Your task to perform on an android device: Search for the best pizza restaurants on Maps Image 0: 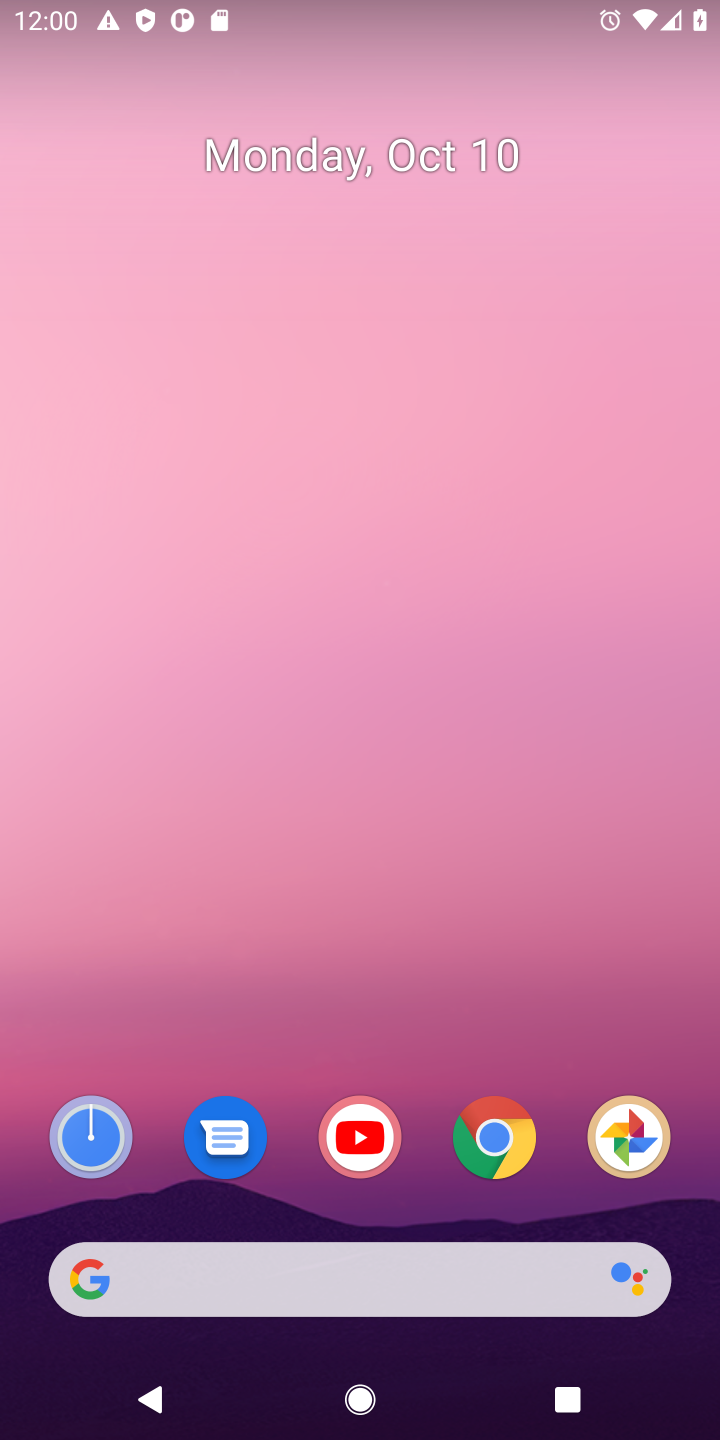
Step 0: drag from (562, 1081) to (614, 13)
Your task to perform on an android device: Search for the best pizza restaurants on Maps Image 1: 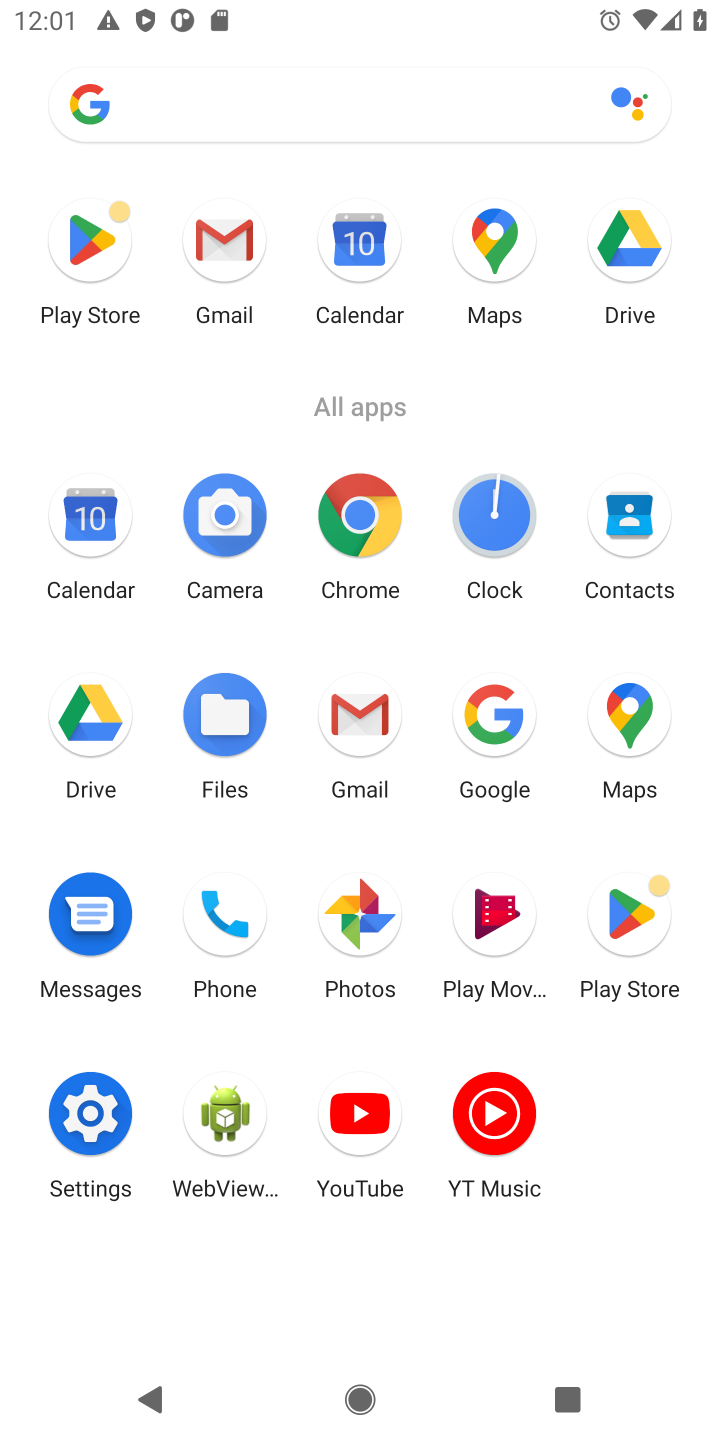
Step 1: click (377, 523)
Your task to perform on an android device: Search for the best pizza restaurants on Maps Image 2: 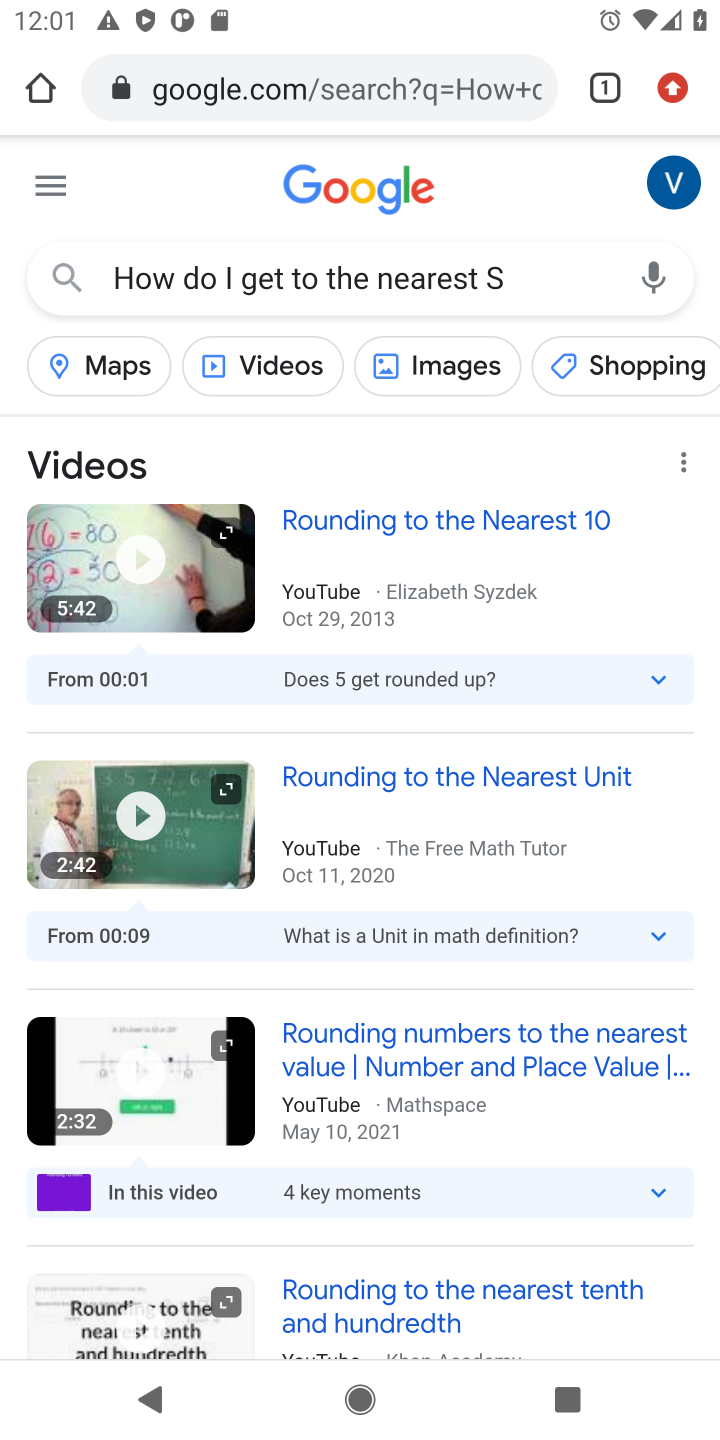
Step 2: click (311, 77)
Your task to perform on an android device: Search for the best pizza restaurants on Maps Image 3: 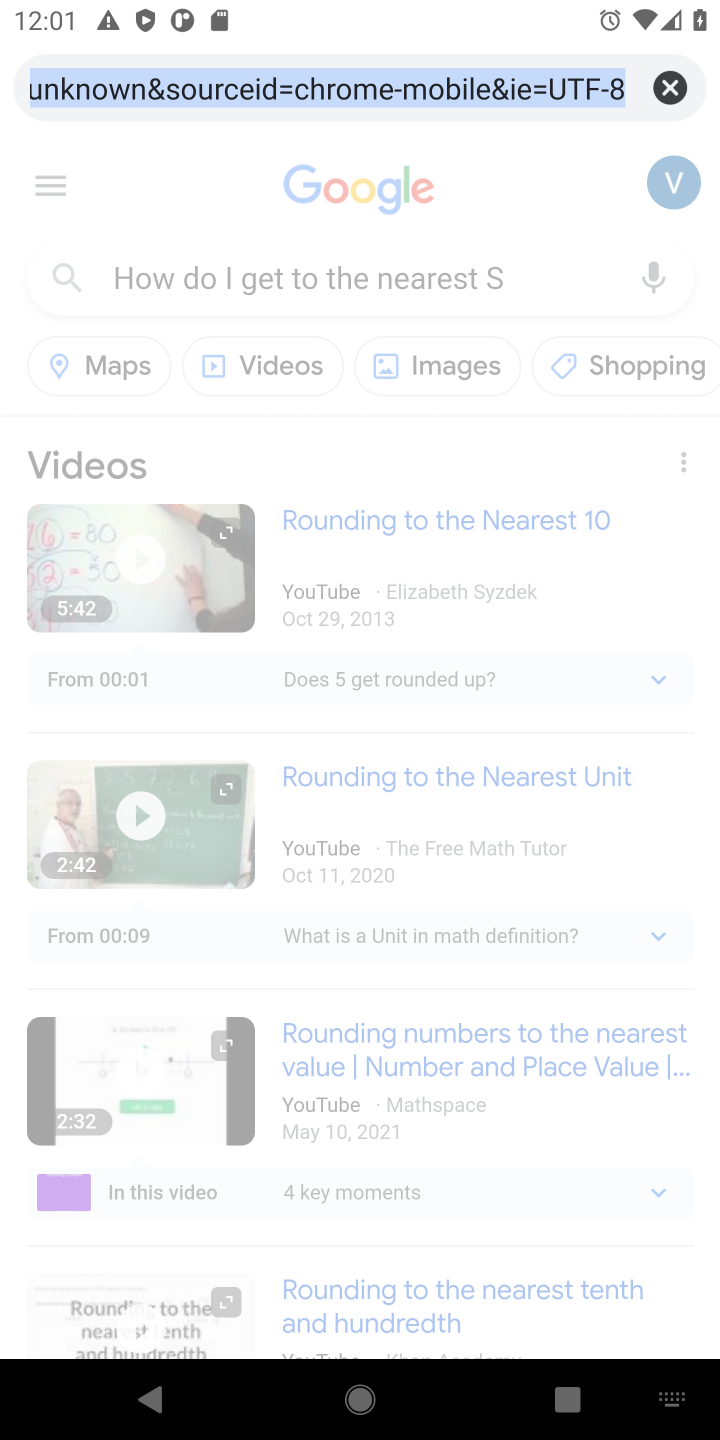
Step 3: click (667, 82)
Your task to perform on an android device: Search for the best pizza restaurants on Maps Image 4: 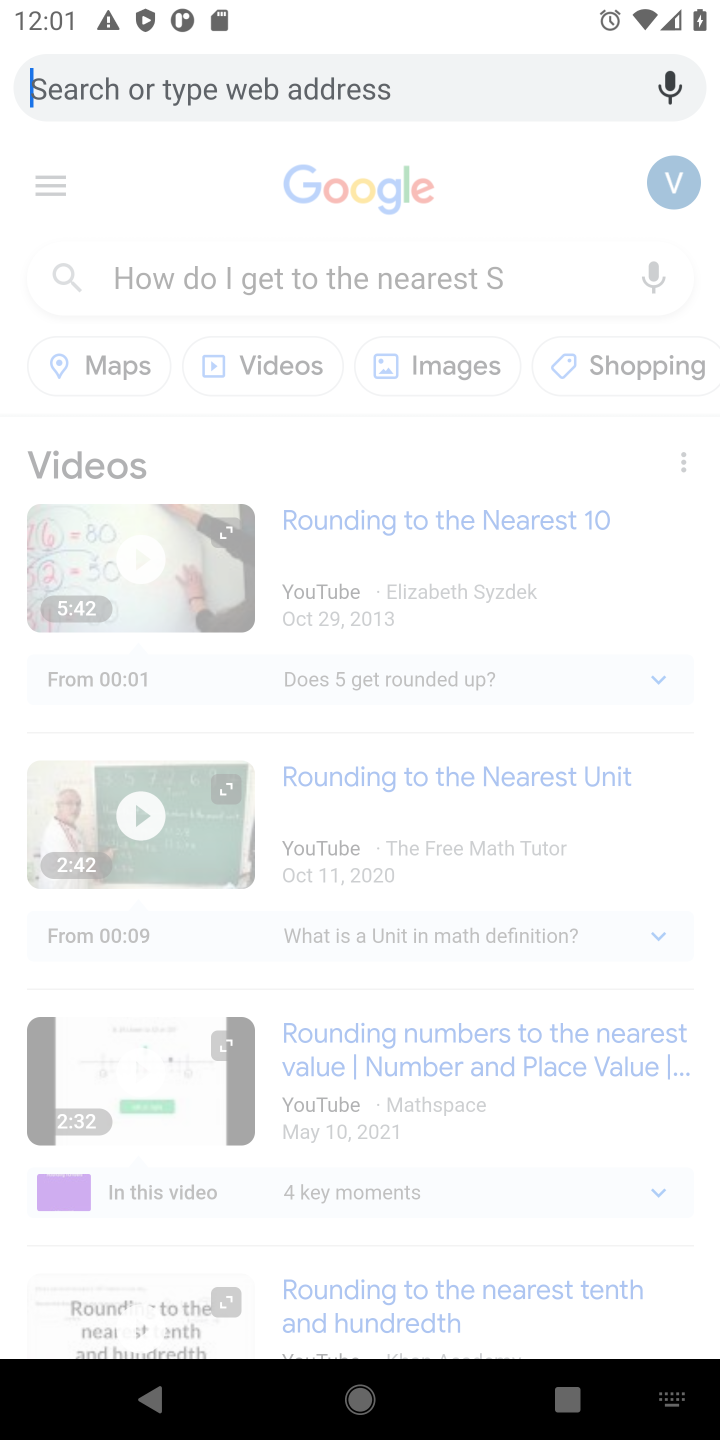
Step 4: type "Search for the best pizza restaurants on Maps"
Your task to perform on an android device: Search for the best pizza restaurants on Maps Image 5: 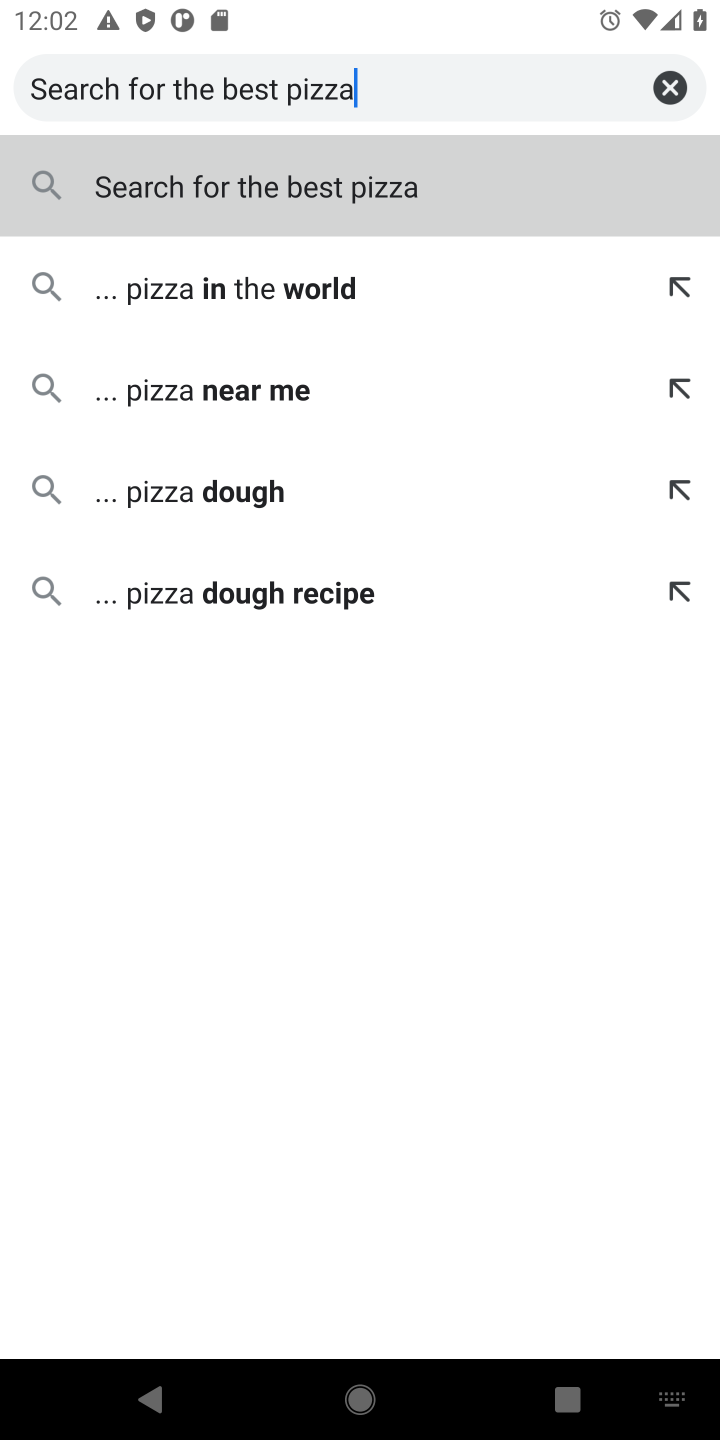
Step 5: click (328, 173)
Your task to perform on an android device: Search for the best pizza restaurants on Maps Image 6: 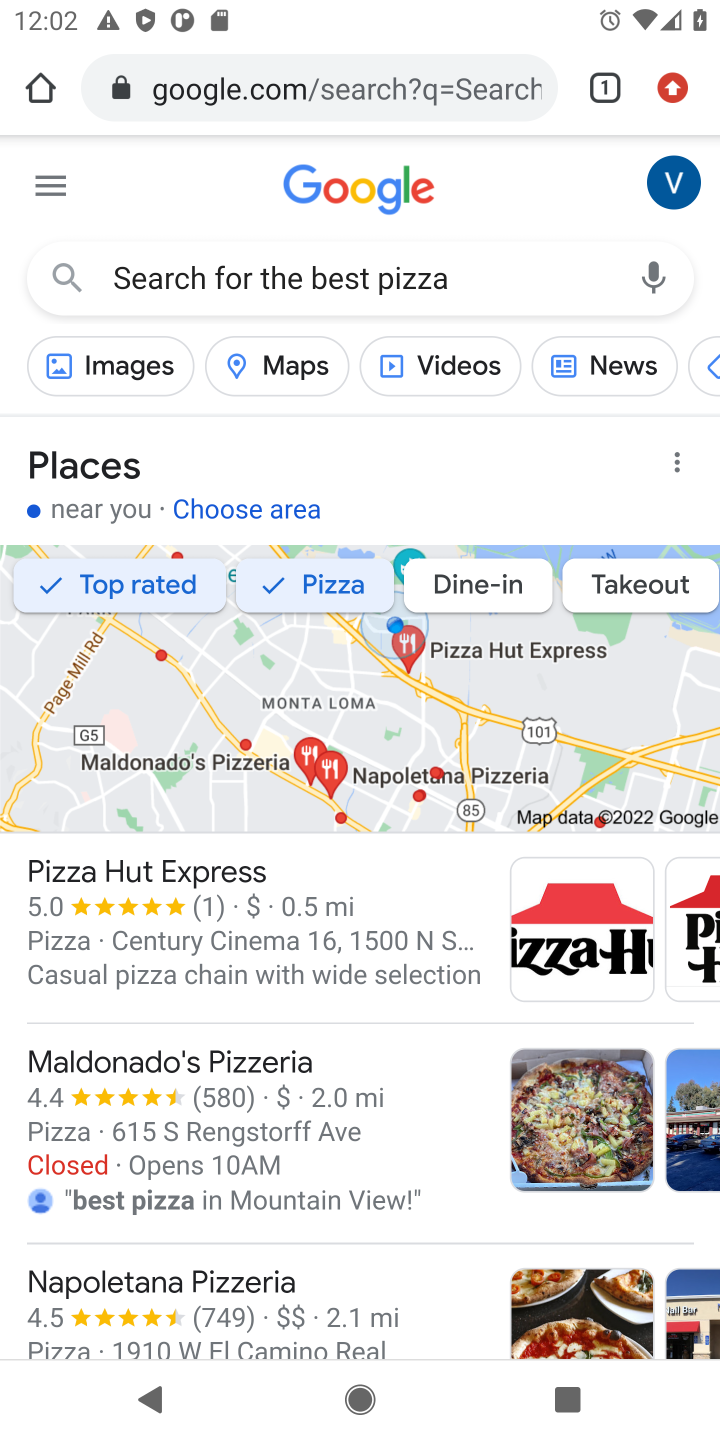
Step 6: task complete